Your task to perform on an android device: Go to privacy settings Image 0: 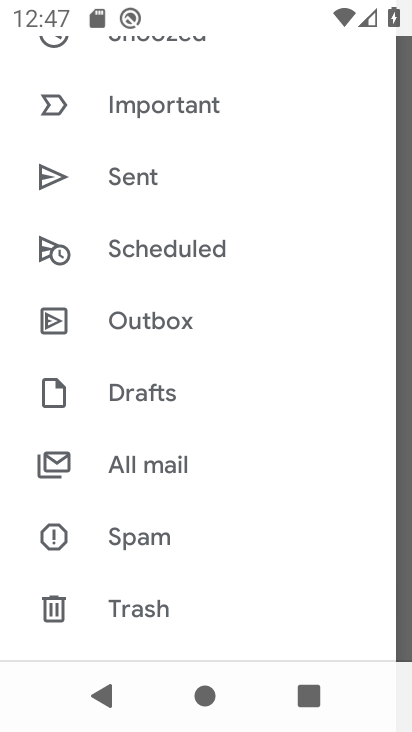
Step 0: press home button
Your task to perform on an android device: Go to privacy settings Image 1: 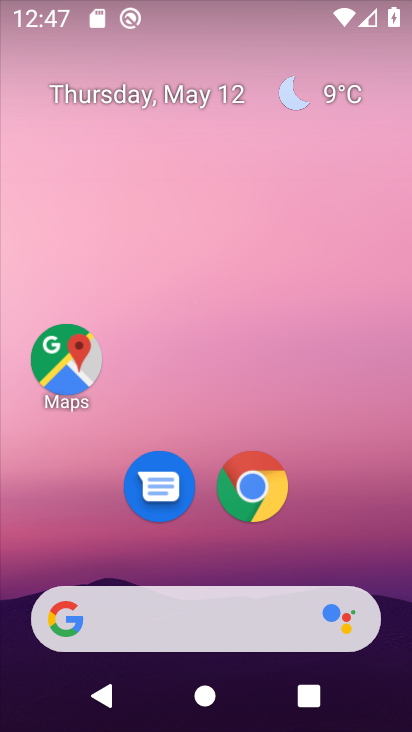
Step 1: drag from (174, 566) to (215, 207)
Your task to perform on an android device: Go to privacy settings Image 2: 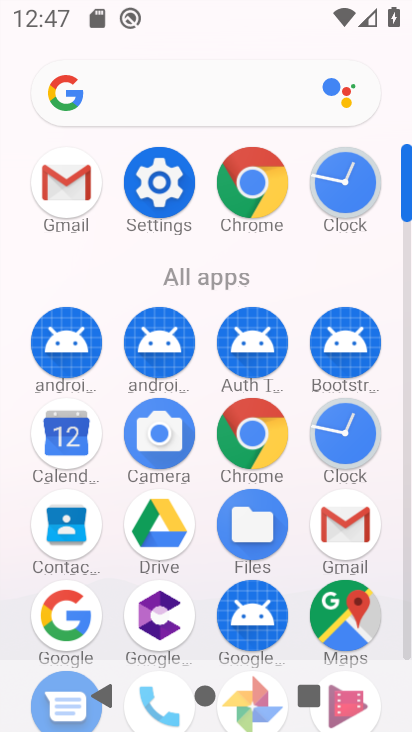
Step 2: click (172, 178)
Your task to perform on an android device: Go to privacy settings Image 3: 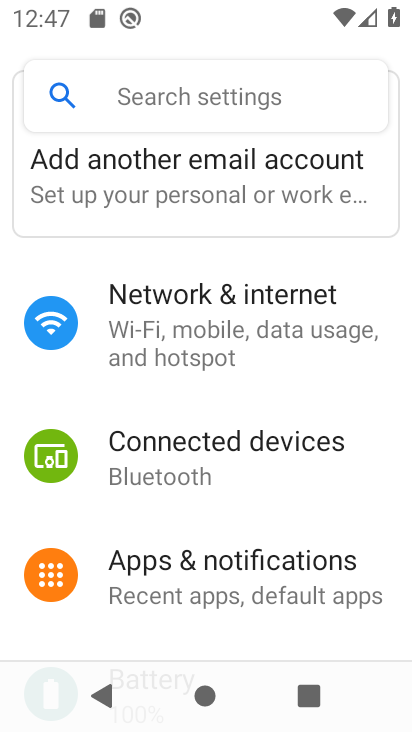
Step 3: drag from (180, 643) to (245, 284)
Your task to perform on an android device: Go to privacy settings Image 4: 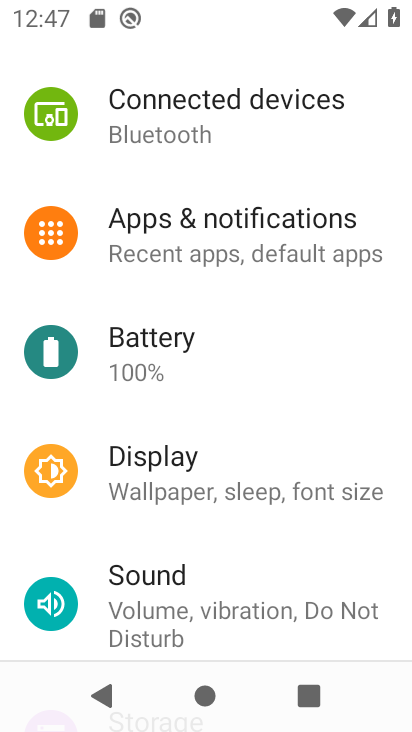
Step 4: drag from (180, 618) to (226, 332)
Your task to perform on an android device: Go to privacy settings Image 5: 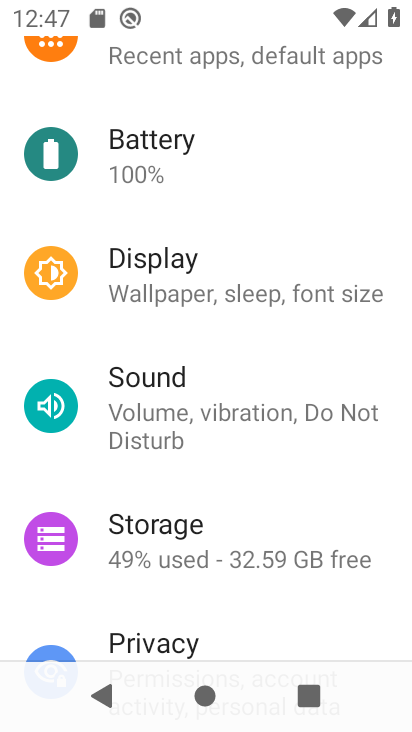
Step 5: click (166, 648)
Your task to perform on an android device: Go to privacy settings Image 6: 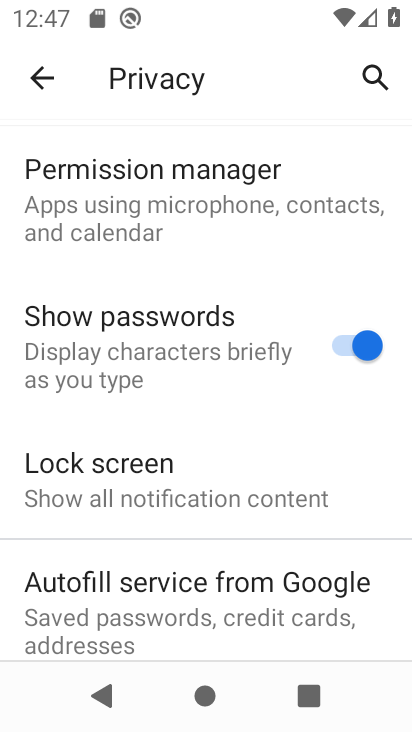
Step 6: drag from (181, 633) to (224, 275)
Your task to perform on an android device: Go to privacy settings Image 7: 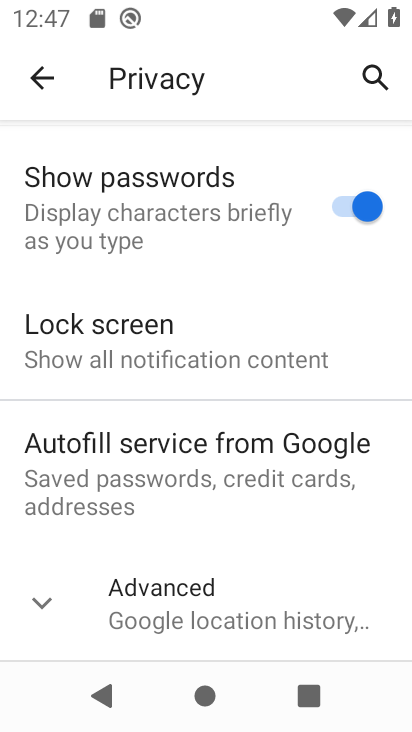
Step 7: click (152, 616)
Your task to perform on an android device: Go to privacy settings Image 8: 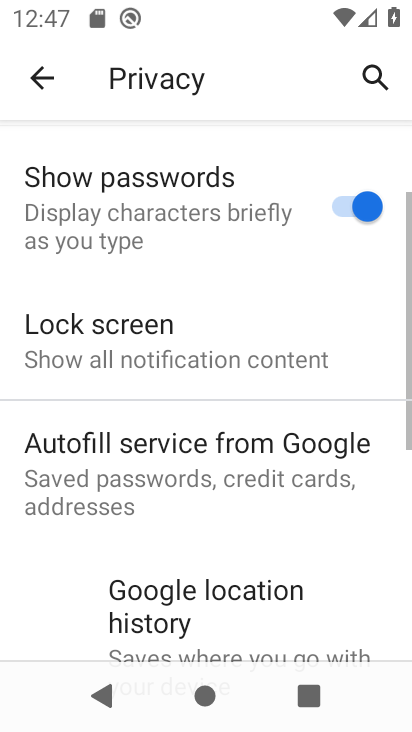
Step 8: task complete